Your task to perform on an android device: Go to ESPN.com Image 0: 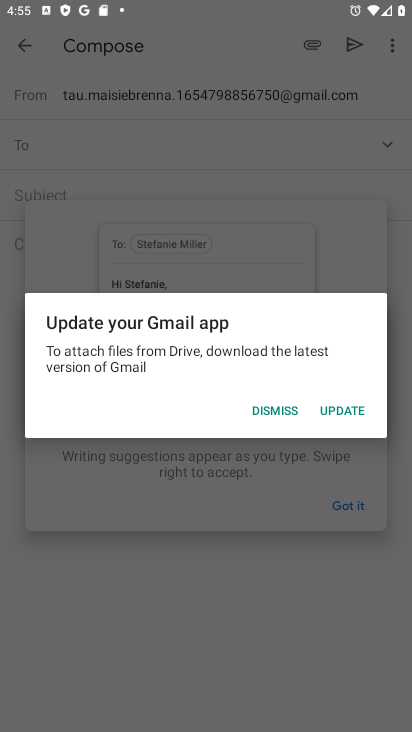
Step 0: press home button
Your task to perform on an android device: Go to ESPN.com Image 1: 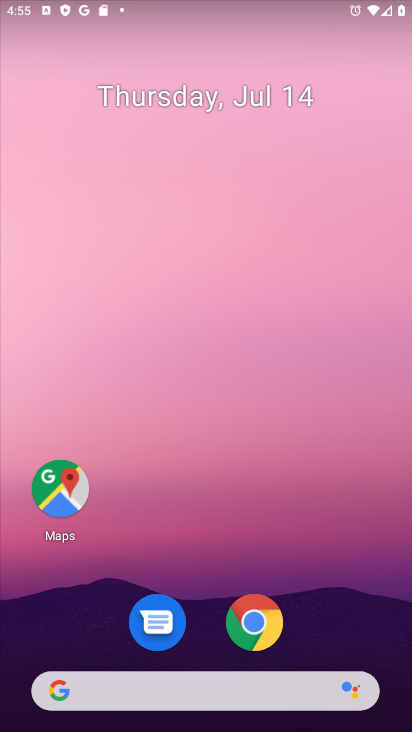
Step 1: click (258, 619)
Your task to perform on an android device: Go to ESPN.com Image 2: 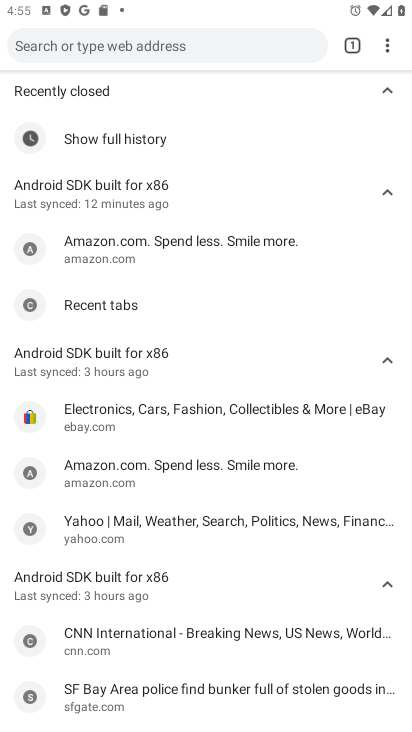
Step 2: click (354, 41)
Your task to perform on an android device: Go to ESPN.com Image 3: 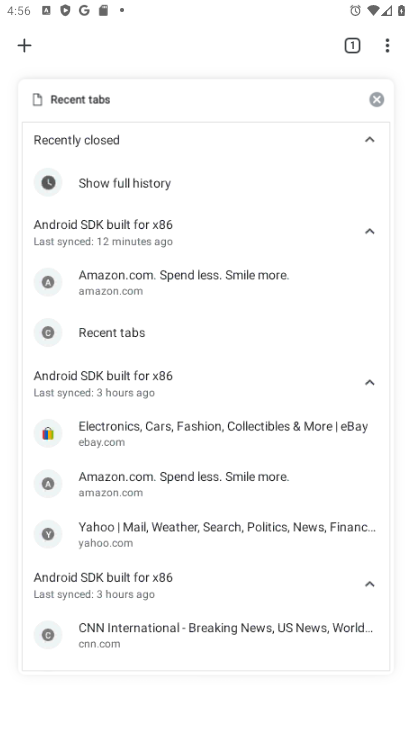
Step 3: click (23, 57)
Your task to perform on an android device: Go to ESPN.com Image 4: 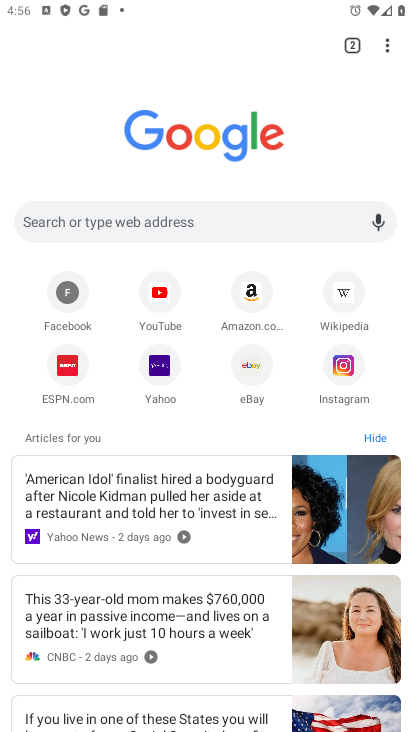
Step 4: click (67, 362)
Your task to perform on an android device: Go to ESPN.com Image 5: 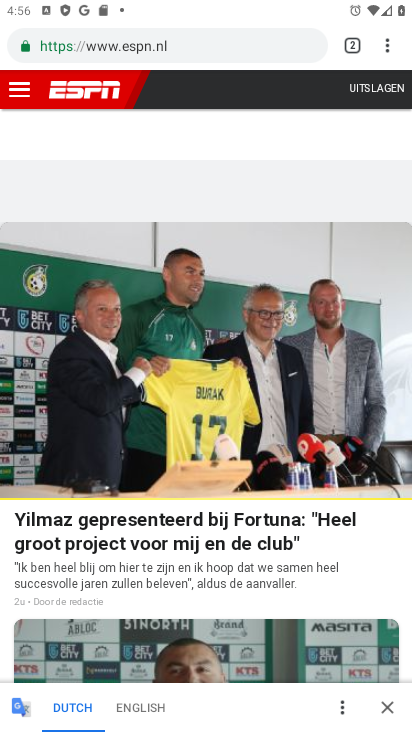
Step 5: task complete